Your task to perform on an android device: Go to location settings Image 0: 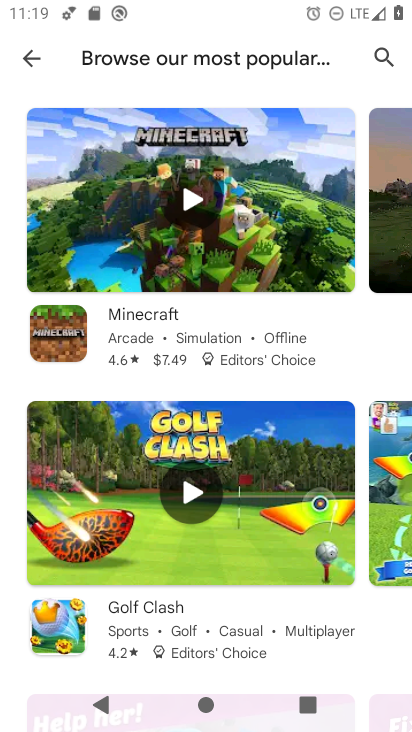
Step 0: press home button
Your task to perform on an android device: Go to location settings Image 1: 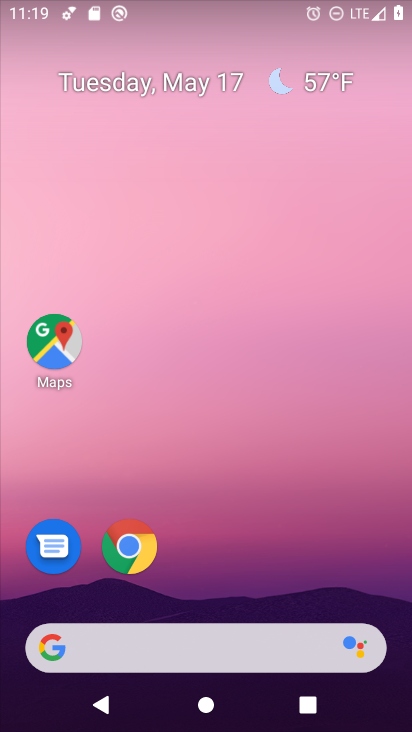
Step 1: drag from (287, 583) to (357, 5)
Your task to perform on an android device: Go to location settings Image 2: 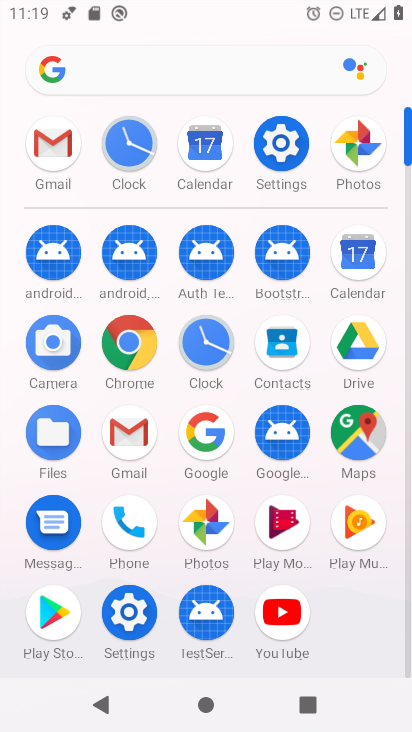
Step 2: click (287, 152)
Your task to perform on an android device: Go to location settings Image 3: 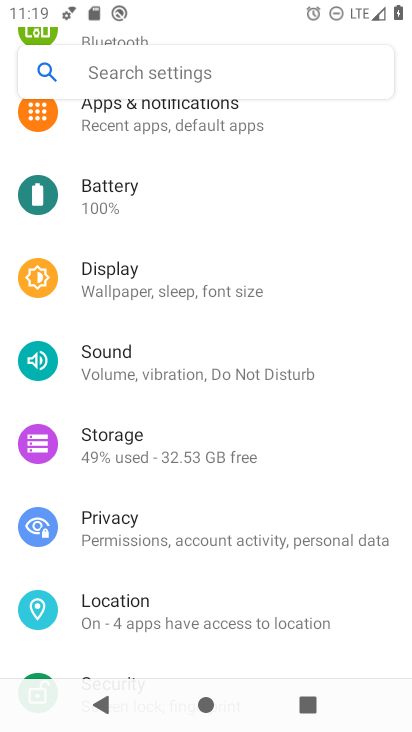
Step 3: click (123, 620)
Your task to perform on an android device: Go to location settings Image 4: 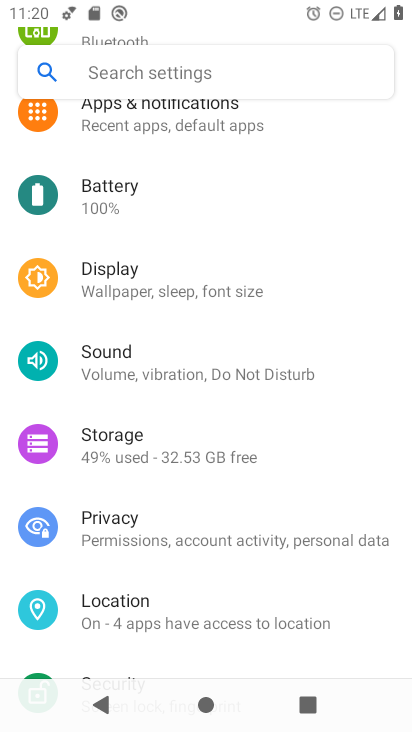
Step 4: click (112, 617)
Your task to perform on an android device: Go to location settings Image 5: 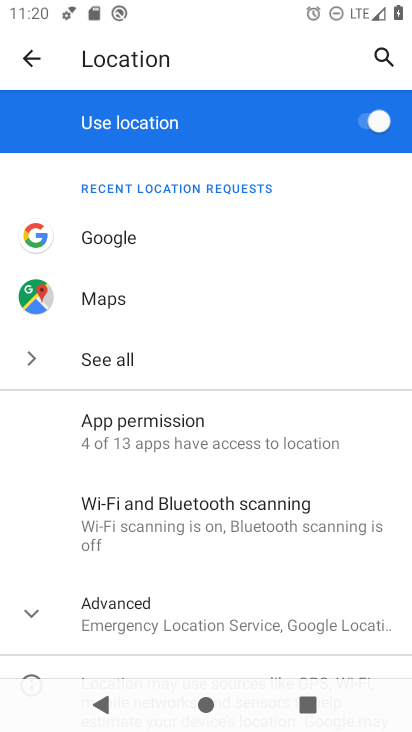
Step 5: task complete